Your task to perform on an android device: toggle airplane mode Image 0: 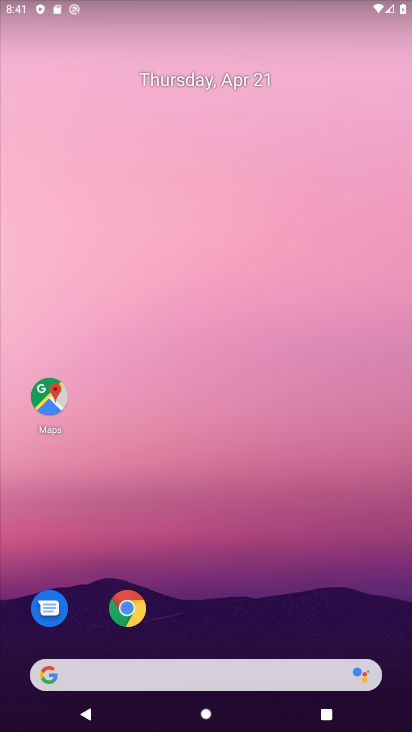
Step 0: drag from (196, 580) to (212, 32)
Your task to perform on an android device: toggle airplane mode Image 1: 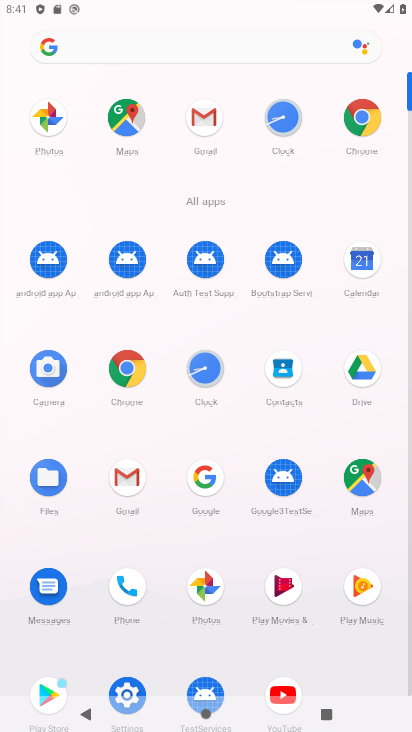
Step 1: click (125, 684)
Your task to perform on an android device: toggle airplane mode Image 2: 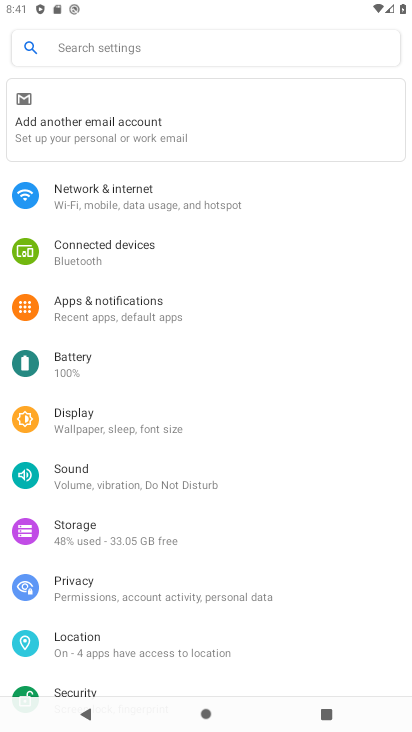
Step 2: click (96, 194)
Your task to perform on an android device: toggle airplane mode Image 3: 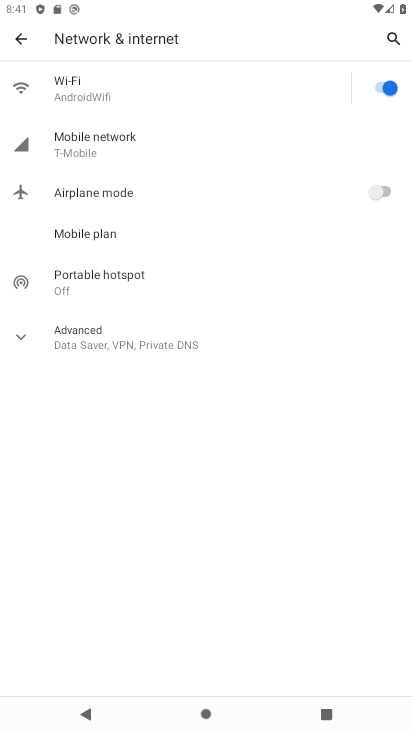
Step 3: click (377, 192)
Your task to perform on an android device: toggle airplane mode Image 4: 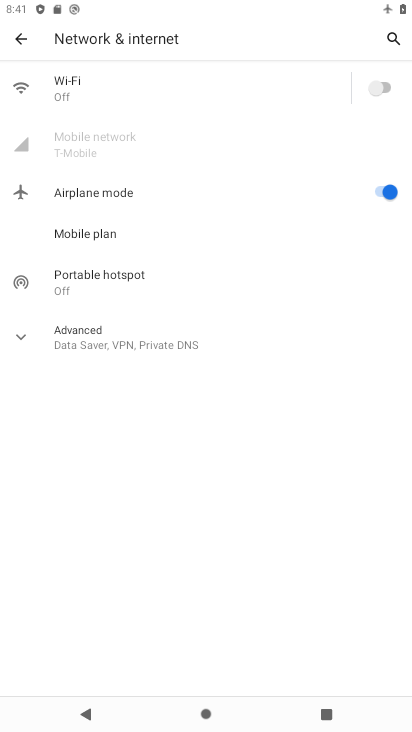
Step 4: task complete